Your task to perform on an android device: toggle sleep mode Image 0: 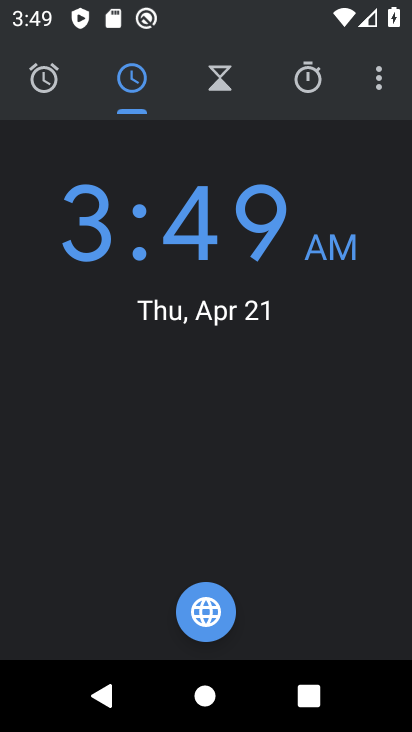
Step 0: press home button
Your task to perform on an android device: toggle sleep mode Image 1: 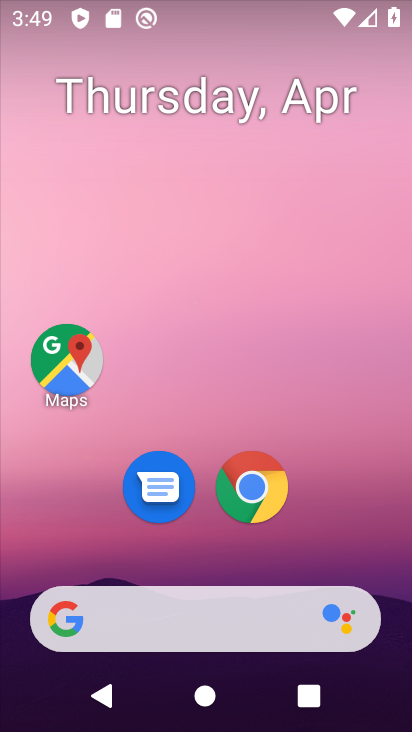
Step 1: drag from (199, 568) to (195, 55)
Your task to perform on an android device: toggle sleep mode Image 2: 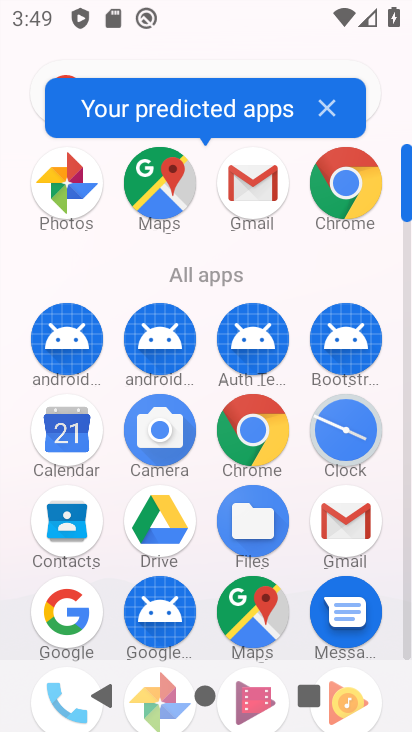
Step 2: drag from (206, 344) to (222, 184)
Your task to perform on an android device: toggle sleep mode Image 3: 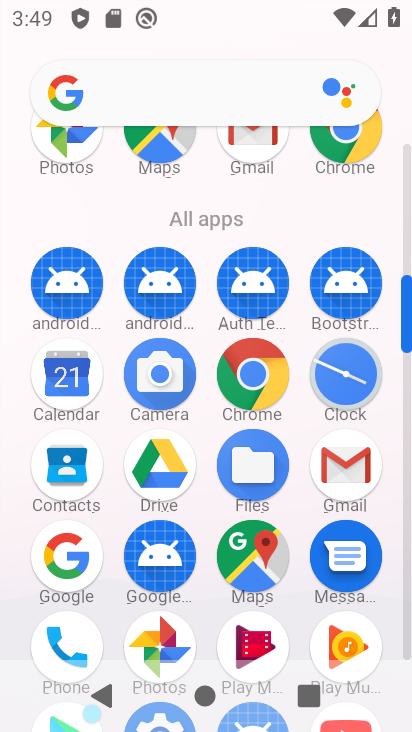
Step 3: drag from (202, 509) to (228, 184)
Your task to perform on an android device: toggle sleep mode Image 4: 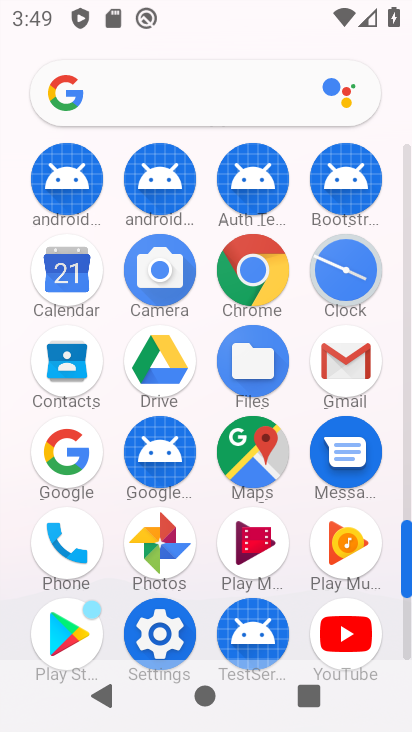
Step 4: click (149, 627)
Your task to perform on an android device: toggle sleep mode Image 5: 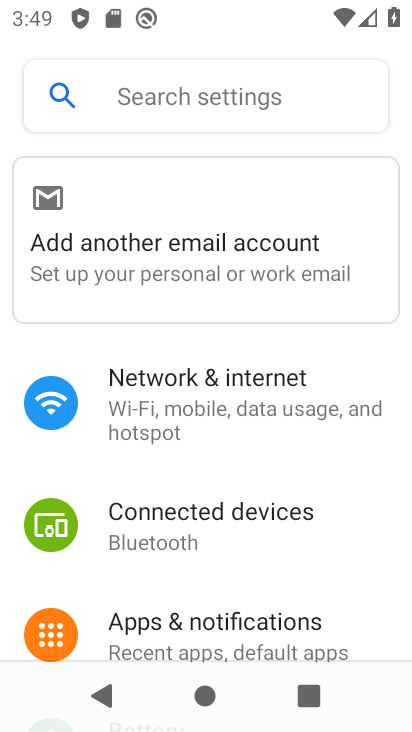
Step 5: drag from (252, 618) to (258, 206)
Your task to perform on an android device: toggle sleep mode Image 6: 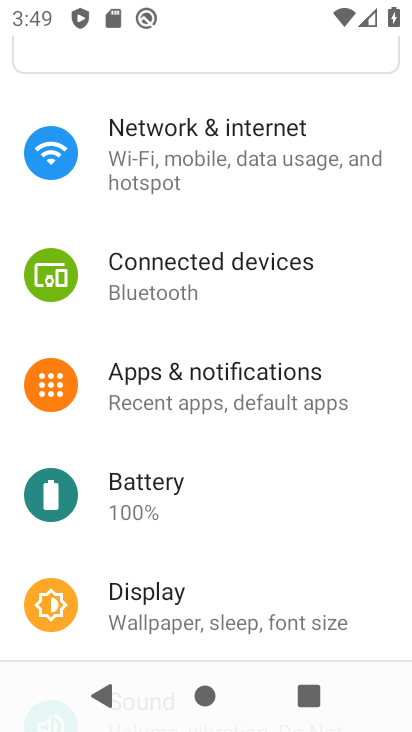
Step 6: drag from (220, 573) to (252, 312)
Your task to perform on an android device: toggle sleep mode Image 7: 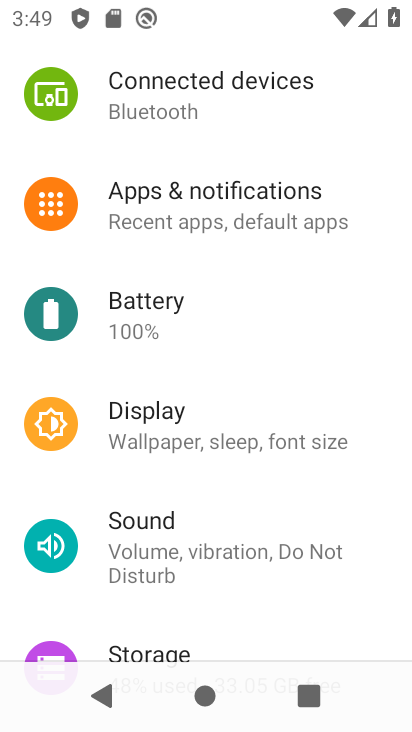
Step 7: click (195, 442)
Your task to perform on an android device: toggle sleep mode Image 8: 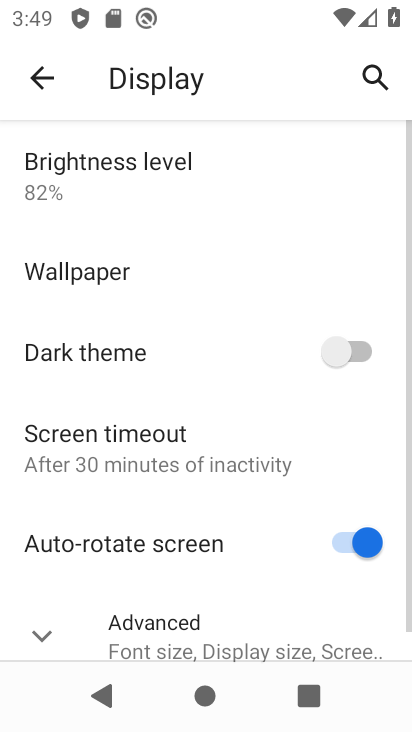
Step 8: click (195, 442)
Your task to perform on an android device: toggle sleep mode Image 9: 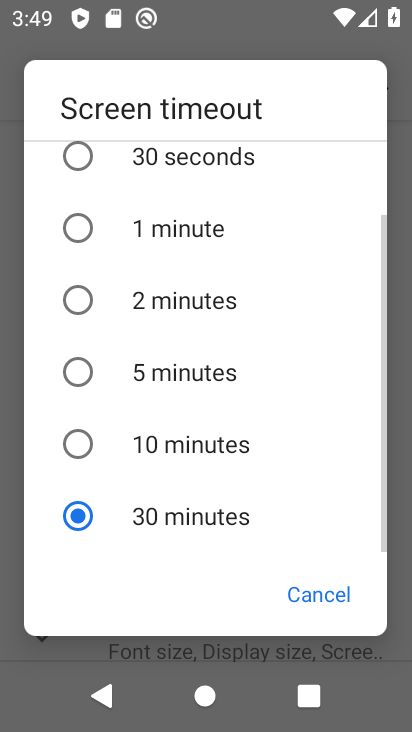
Step 9: click (205, 303)
Your task to perform on an android device: toggle sleep mode Image 10: 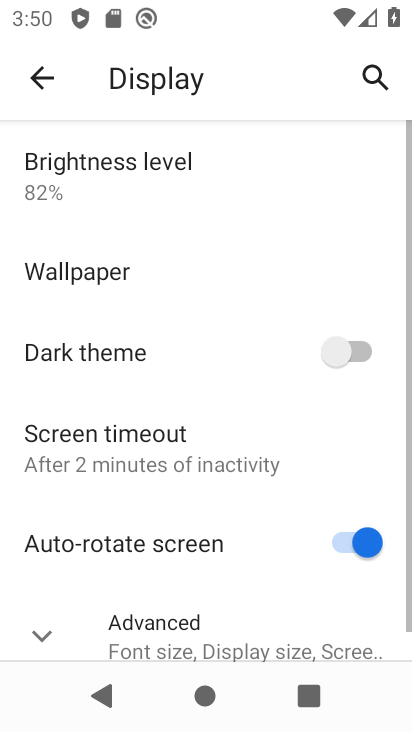
Step 10: task complete